Your task to perform on an android device: Open the phone app and click the voicemail tab. Image 0: 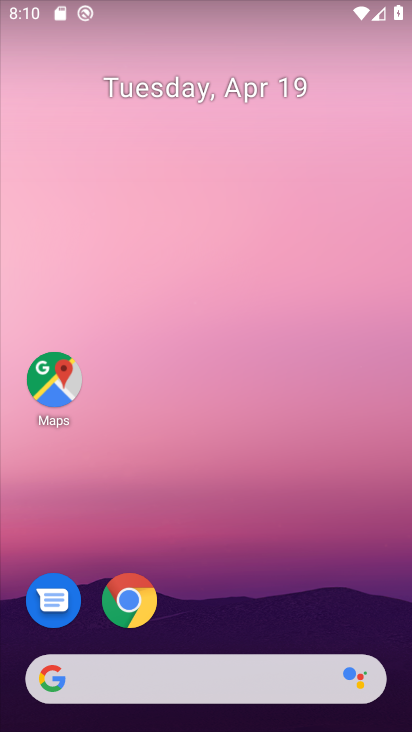
Step 0: drag from (360, 603) to (353, 100)
Your task to perform on an android device: Open the phone app and click the voicemail tab. Image 1: 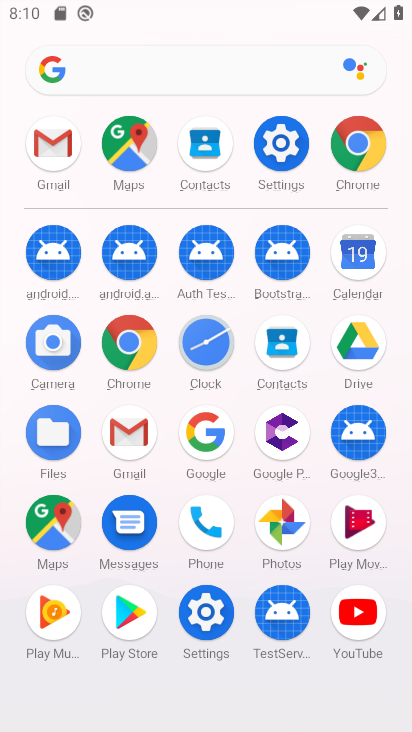
Step 1: click (209, 529)
Your task to perform on an android device: Open the phone app and click the voicemail tab. Image 2: 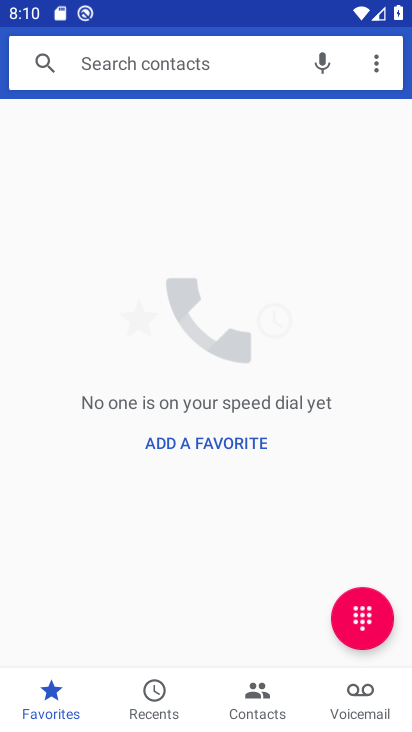
Step 2: click (362, 701)
Your task to perform on an android device: Open the phone app and click the voicemail tab. Image 3: 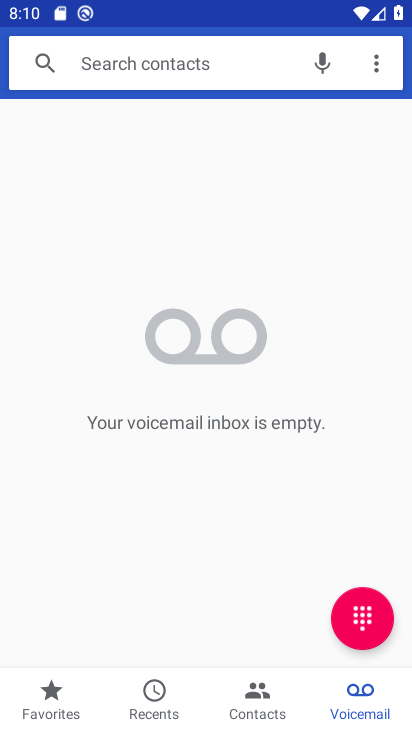
Step 3: task complete